Your task to perform on an android device: Show me the alarms in the clock app Image 0: 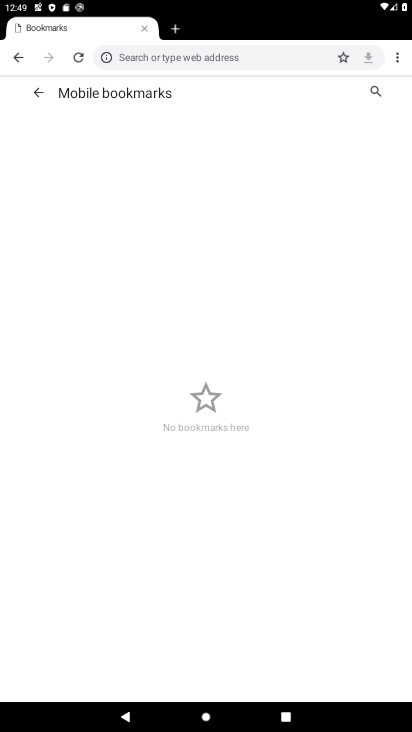
Step 0: press home button
Your task to perform on an android device: Show me the alarms in the clock app Image 1: 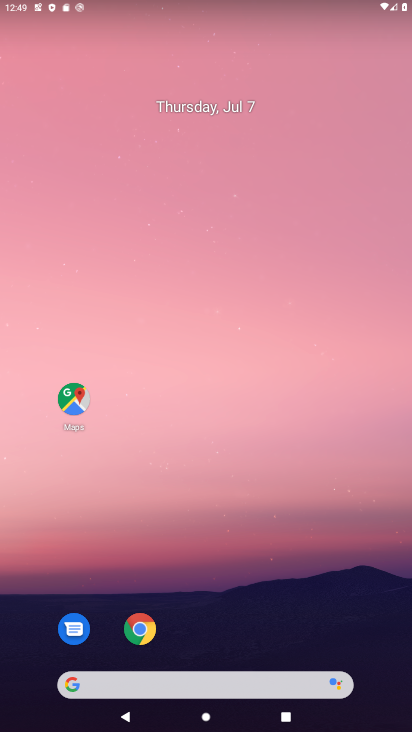
Step 1: drag from (231, 636) to (280, 96)
Your task to perform on an android device: Show me the alarms in the clock app Image 2: 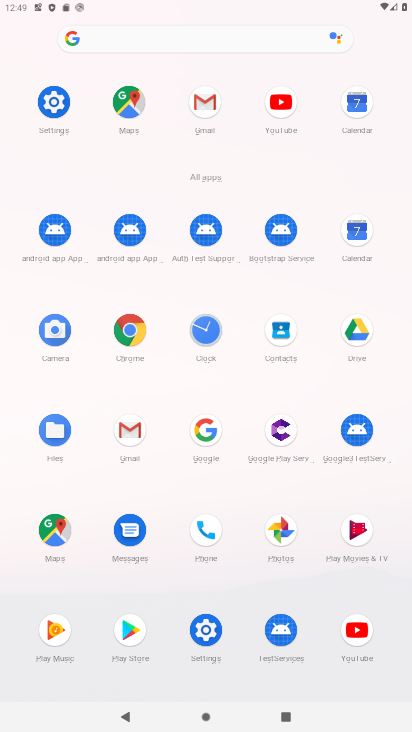
Step 2: click (206, 329)
Your task to perform on an android device: Show me the alarms in the clock app Image 3: 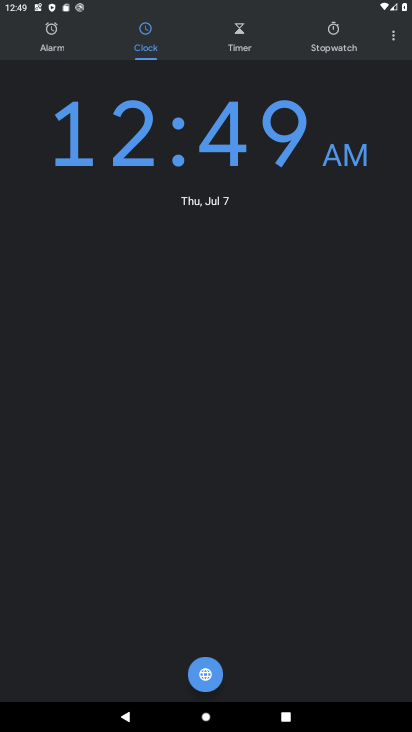
Step 3: click (50, 31)
Your task to perform on an android device: Show me the alarms in the clock app Image 4: 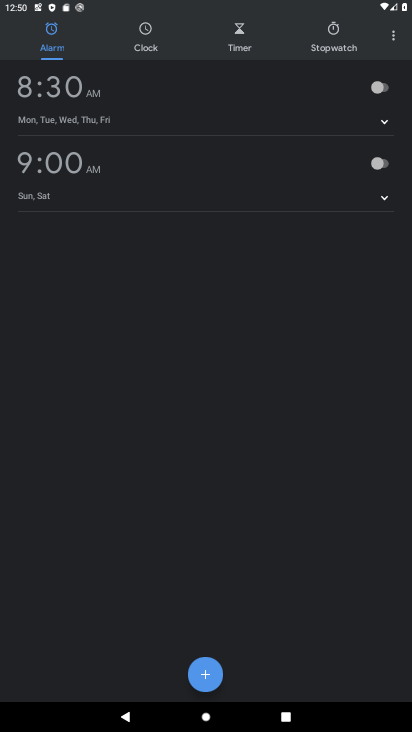
Step 4: click (210, 671)
Your task to perform on an android device: Show me the alarms in the clock app Image 5: 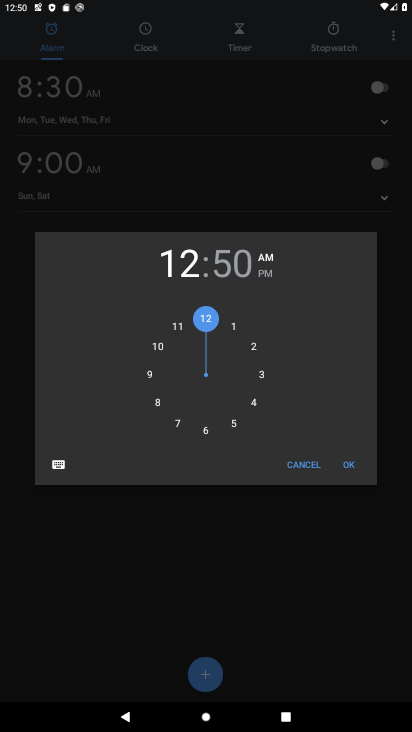
Step 5: click (179, 410)
Your task to perform on an android device: Show me the alarms in the clock app Image 6: 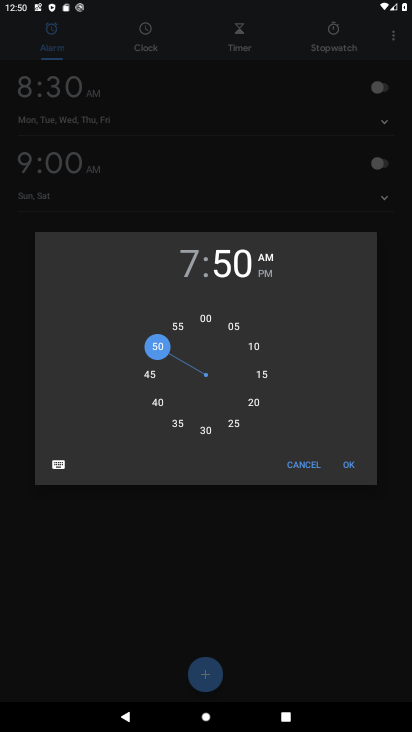
Step 6: click (179, 410)
Your task to perform on an android device: Show me the alarms in the clock app Image 7: 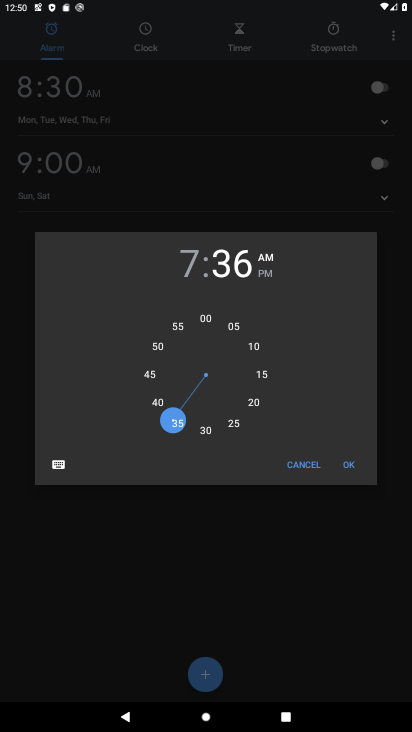
Step 7: click (351, 465)
Your task to perform on an android device: Show me the alarms in the clock app Image 8: 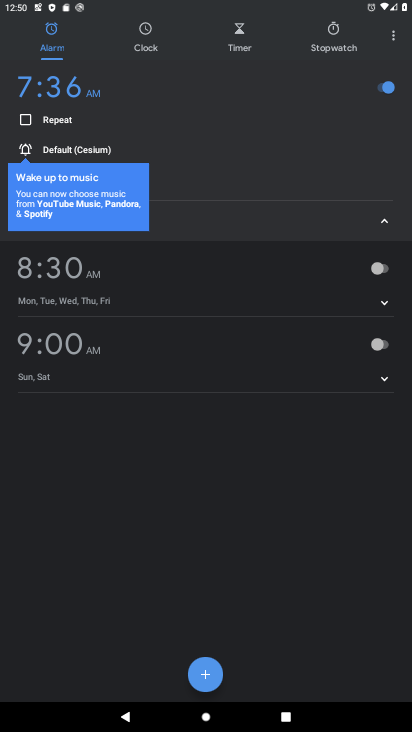
Step 8: click (387, 221)
Your task to perform on an android device: Show me the alarms in the clock app Image 9: 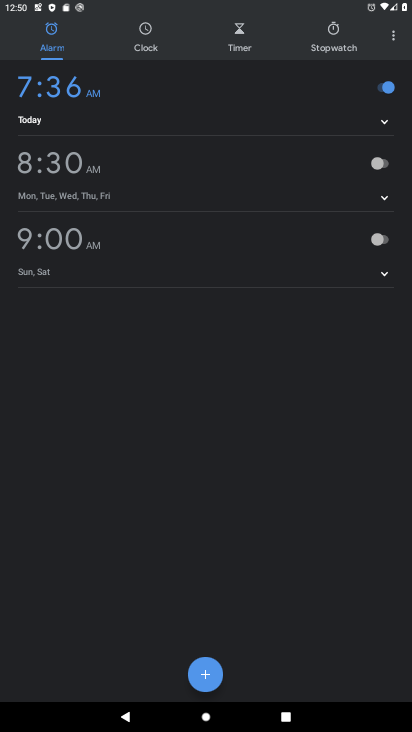
Step 9: task complete